Your task to perform on an android device: Open the map Image 0: 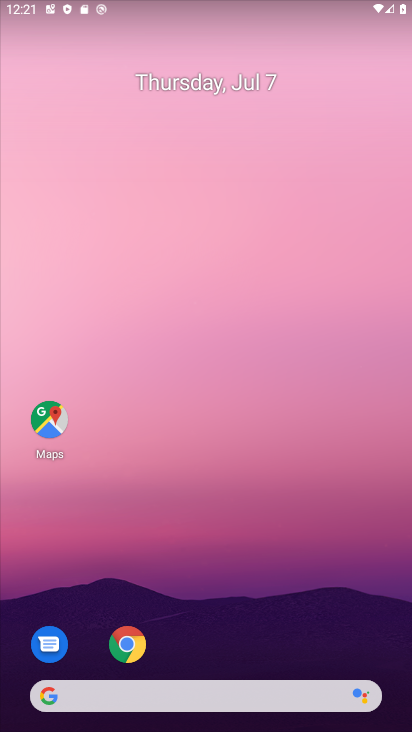
Step 0: drag from (295, 588) to (290, 65)
Your task to perform on an android device: Open the map Image 1: 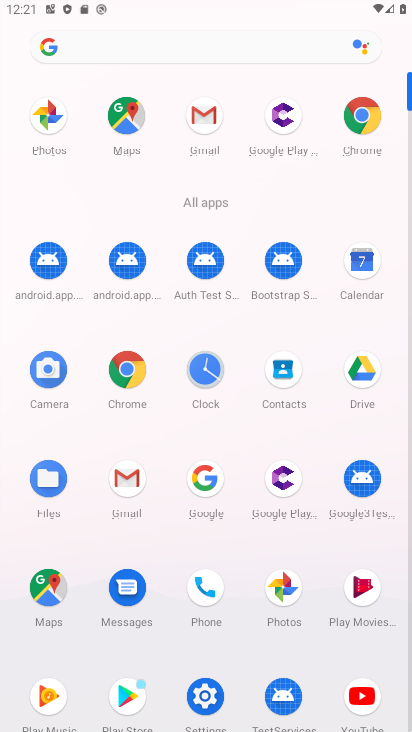
Step 1: click (118, 118)
Your task to perform on an android device: Open the map Image 2: 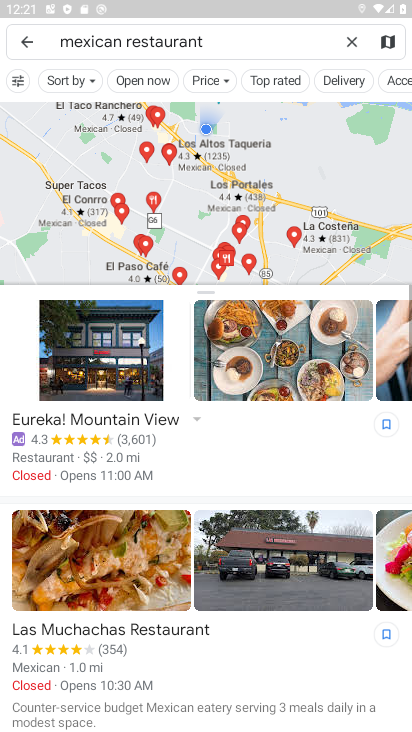
Step 2: click (22, 39)
Your task to perform on an android device: Open the map Image 3: 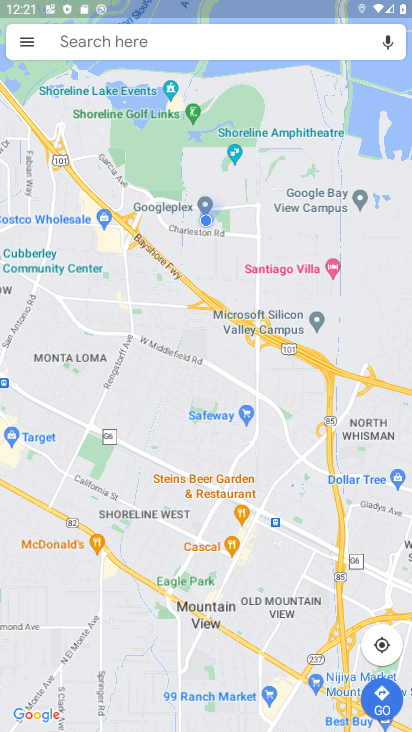
Step 3: task complete